Your task to perform on an android device: Go to Google maps Image 0: 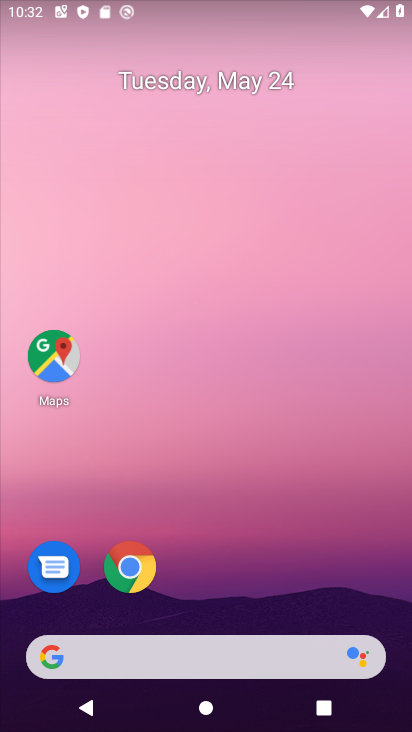
Step 0: press home button
Your task to perform on an android device: Go to Google maps Image 1: 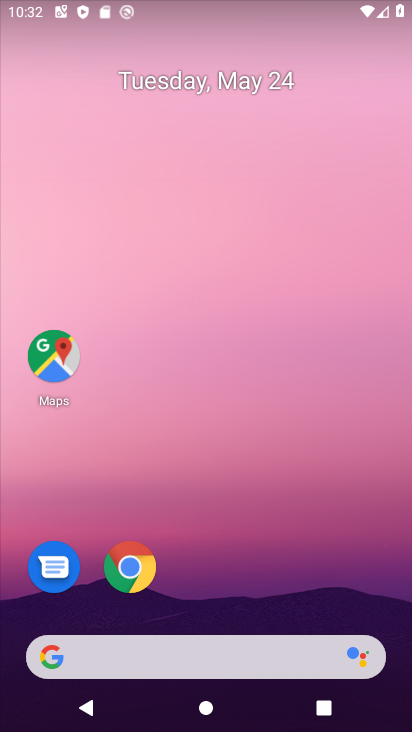
Step 1: drag from (252, 689) to (301, 60)
Your task to perform on an android device: Go to Google maps Image 2: 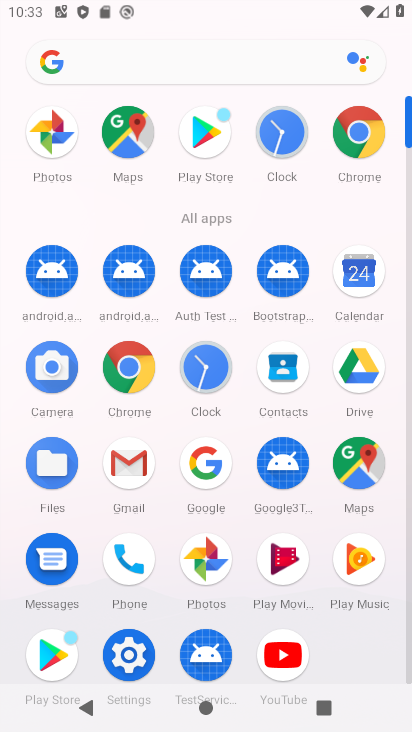
Step 2: click (63, 56)
Your task to perform on an android device: Go to Google maps Image 3: 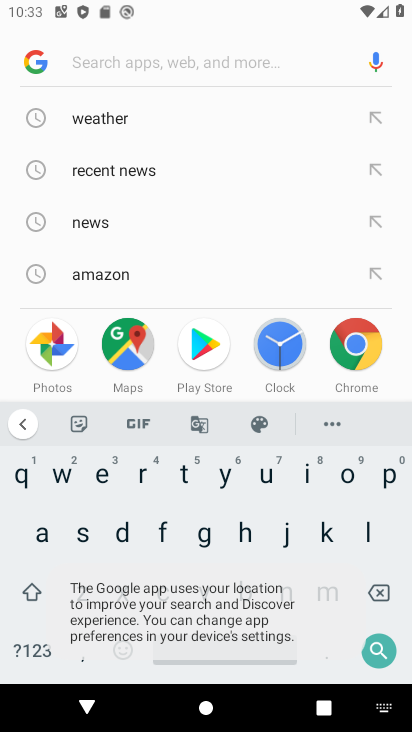
Step 3: click (116, 348)
Your task to perform on an android device: Go to Google maps Image 4: 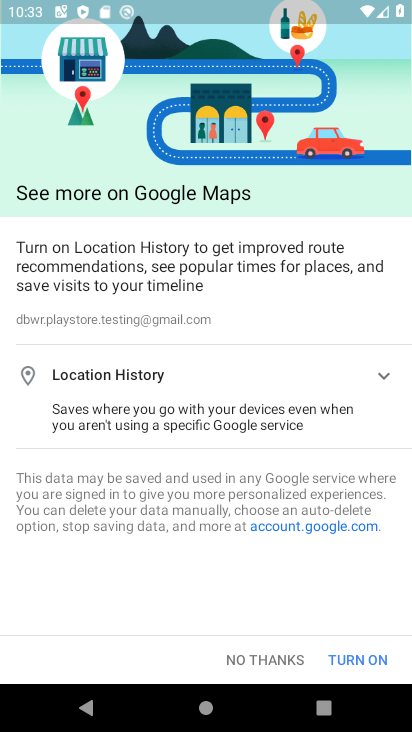
Step 4: click (254, 657)
Your task to perform on an android device: Go to Google maps Image 5: 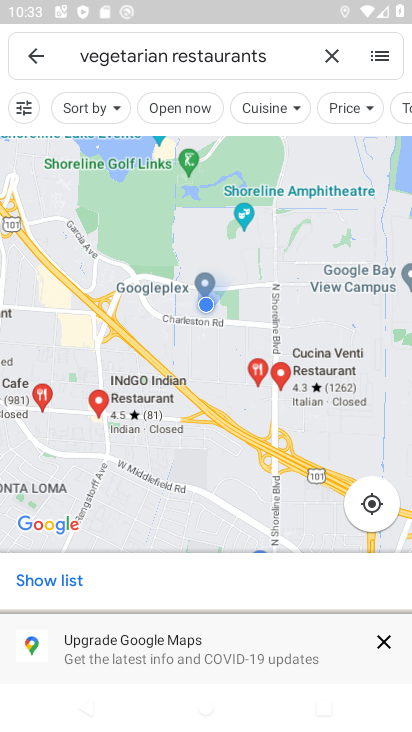
Step 5: click (223, 492)
Your task to perform on an android device: Go to Google maps Image 6: 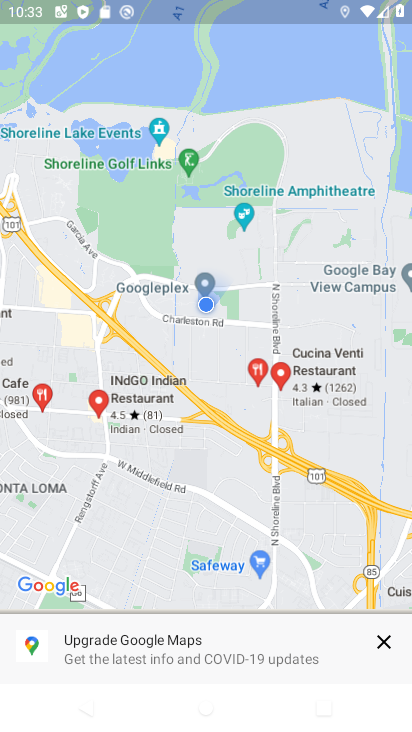
Step 6: task complete